Your task to perform on an android device: What's the weather going to be tomorrow? Image 0: 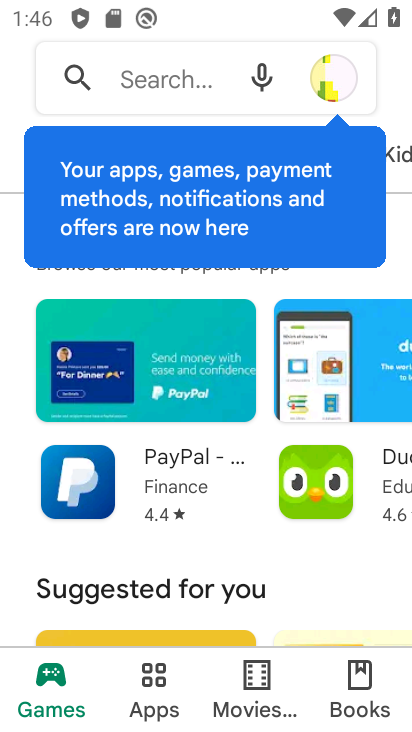
Step 0: press home button
Your task to perform on an android device: What's the weather going to be tomorrow? Image 1: 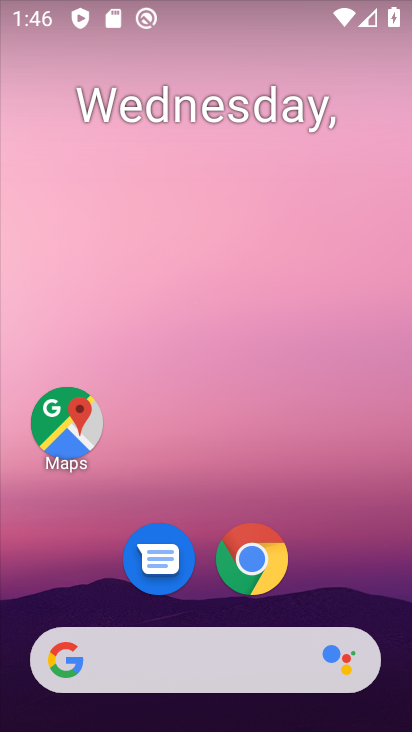
Step 1: drag from (191, 448) to (223, 59)
Your task to perform on an android device: What's the weather going to be tomorrow? Image 2: 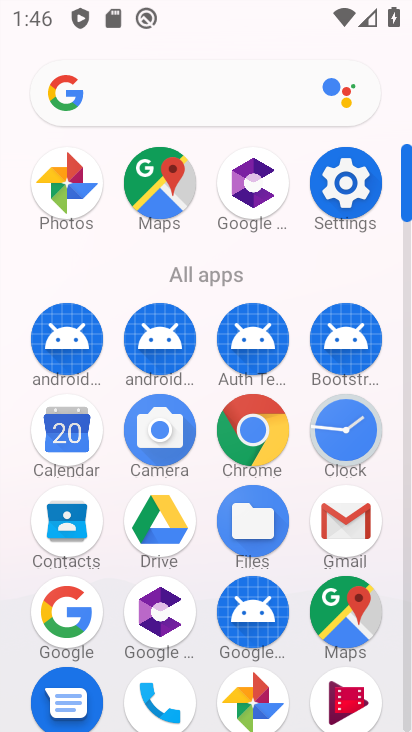
Step 2: click (148, 100)
Your task to perform on an android device: What's the weather going to be tomorrow? Image 3: 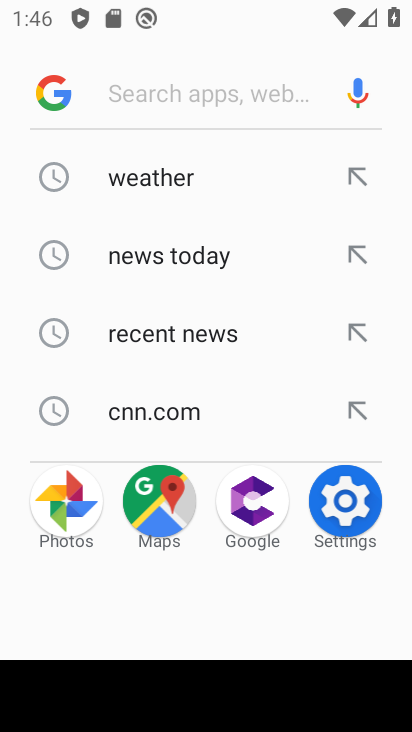
Step 3: type "What's the weather going to be tomorrow?"
Your task to perform on an android device: What's the weather going to be tomorrow? Image 4: 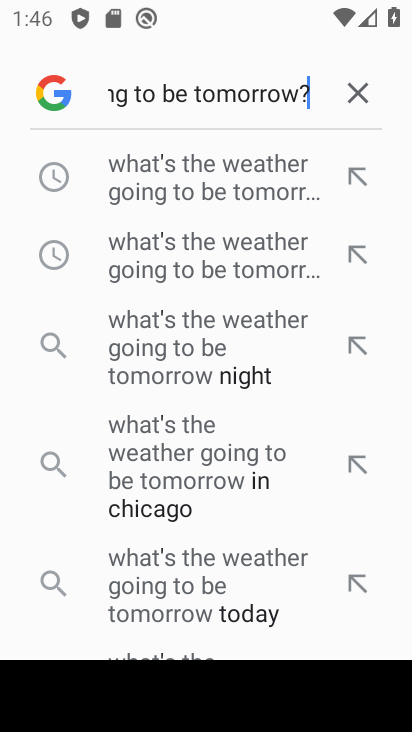
Step 4: click (215, 167)
Your task to perform on an android device: What's the weather going to be tomorrow? Image 5: 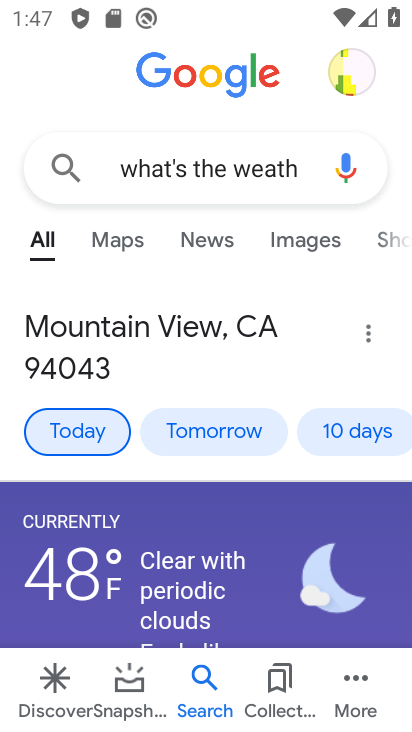
Step 5: task complete